Your task to perform on an android device: turn off javascript in the chrome app Image 0: 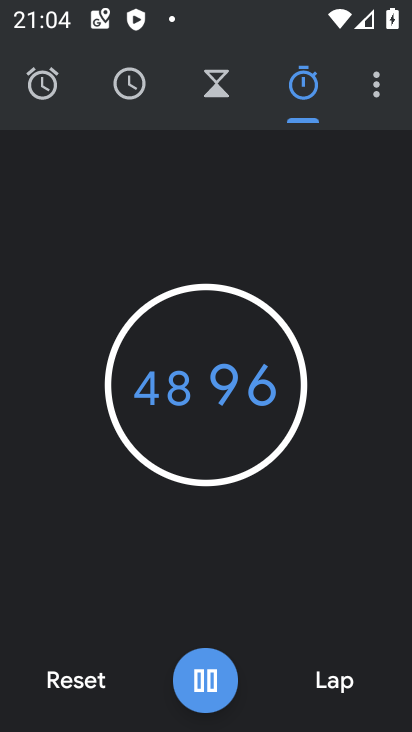
Step 0: press home button
Your task to perform on an android device: turn off javascript in the chrome app Image 1: 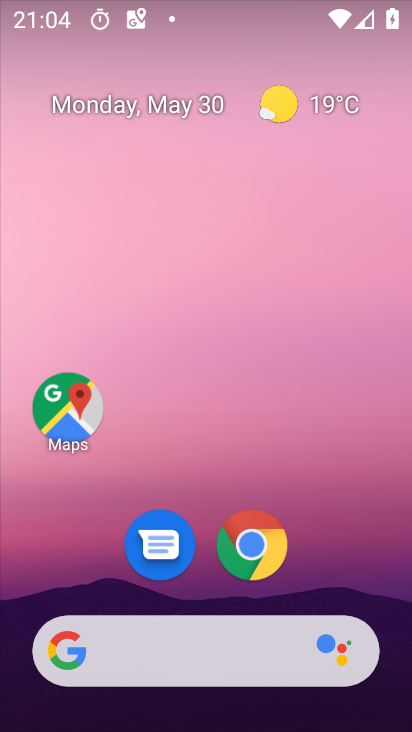
Step 1: click (267, 543)
Your task to perform on an android device: turn off javascript in the chrome app Image 2: 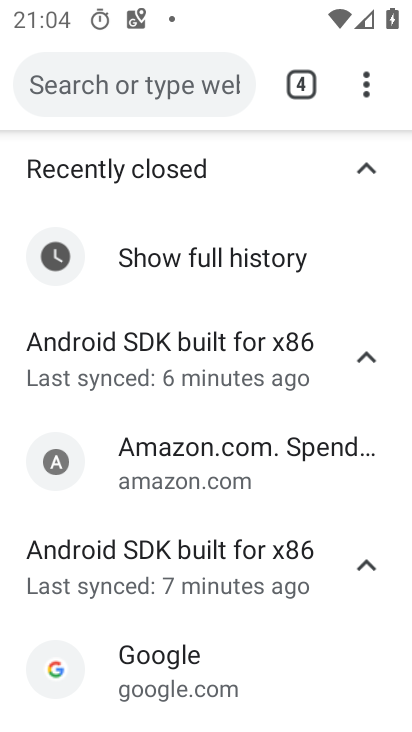
Step 2: click (376, 86)
Your task to perform on an android device: turn off javascript in the chrome app Image 3: 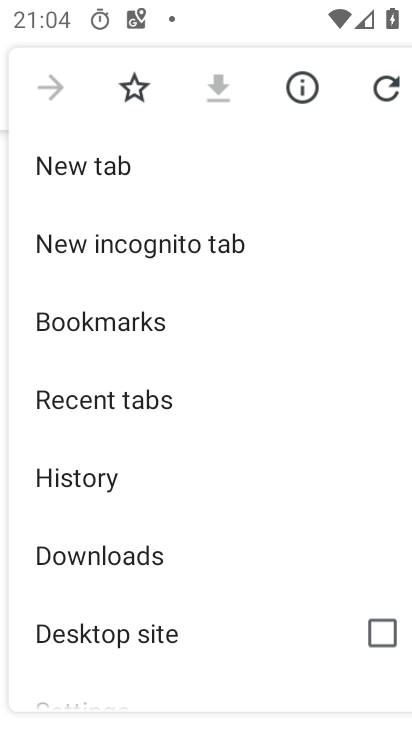
Step 3: drag from (121, 596) to (176, 294)
Your task to perform on an android device: turn off javascript in the chrome app Image 4: 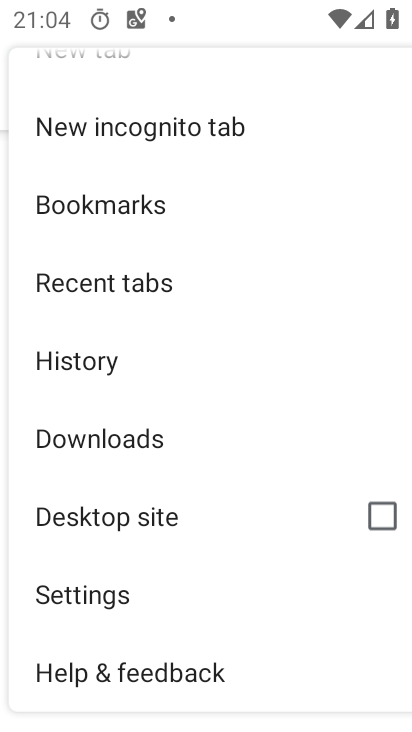
Step 4: click (85, 600)
Your task to perform on an android device: turn off javascript in the chrome app Image 5: 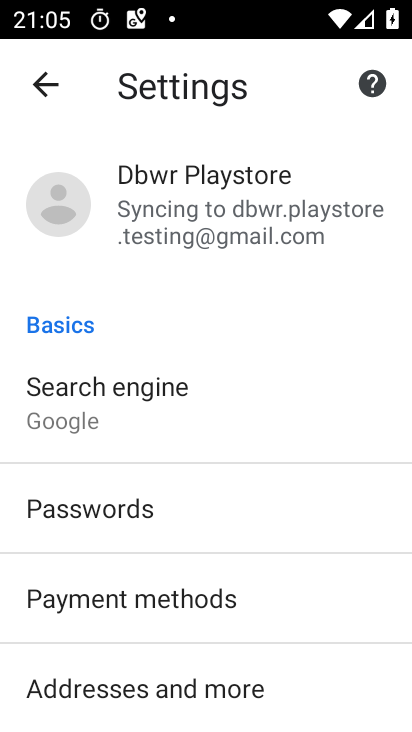
Step 5: drag from (313, 608) to (290, 339)
Your task to perform on an android device: turn off javascript in the chrome app Image 6: 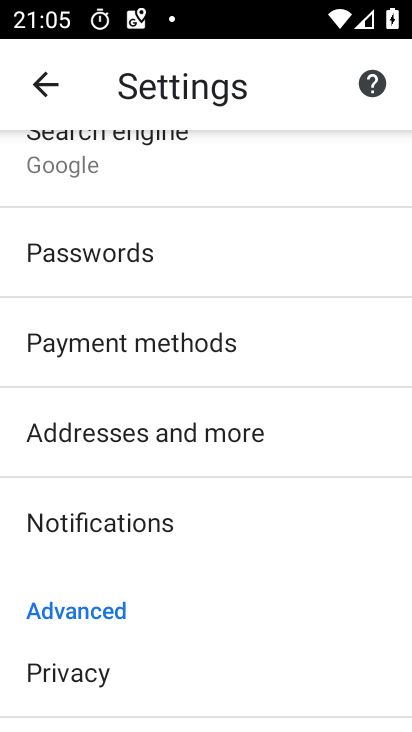
Step 6: drag from (223, 655) to (250, 408)
Your task to perform on an android device: turn off javascript in the chrome app Image 7: 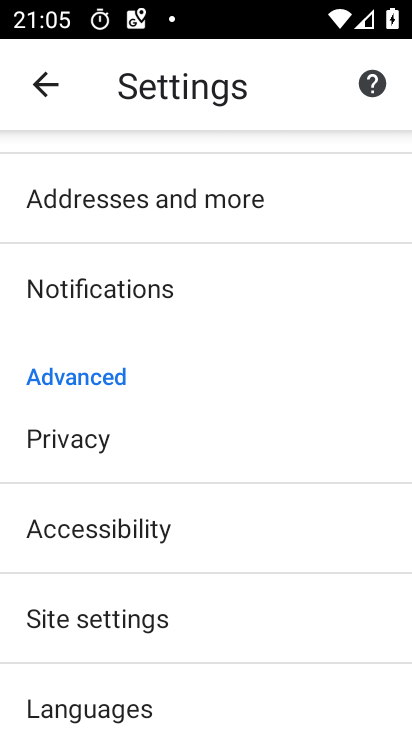
Step 7: click (150, 628)
Your task to perform on an android device: turn off javascript in the chrome app Image 8: 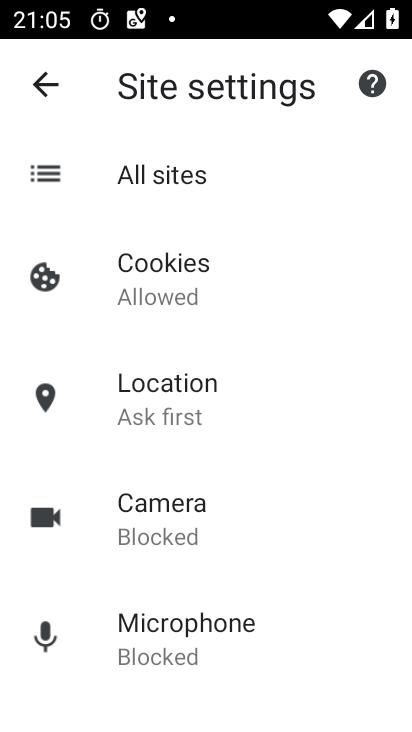
Step 8: drag from (290, 586) to (287, 450)
Your task to perform on an android device: turn off javascript in the chrome app Image 9: 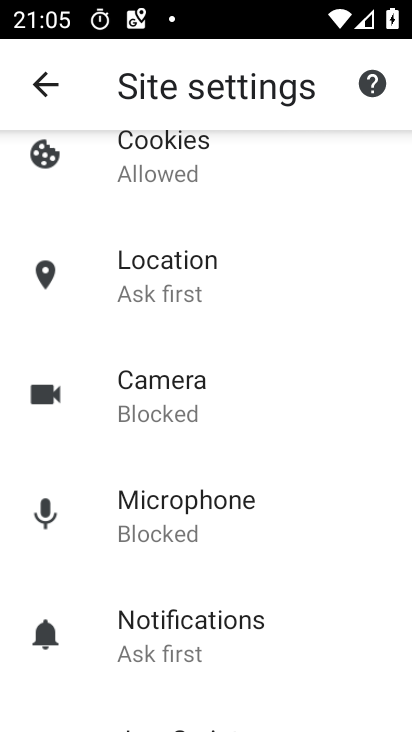
Step 9: drag from (306, 585) to (280, 239)
Your task to perform on an android device: turn off javascript in the chrome app Image 10: 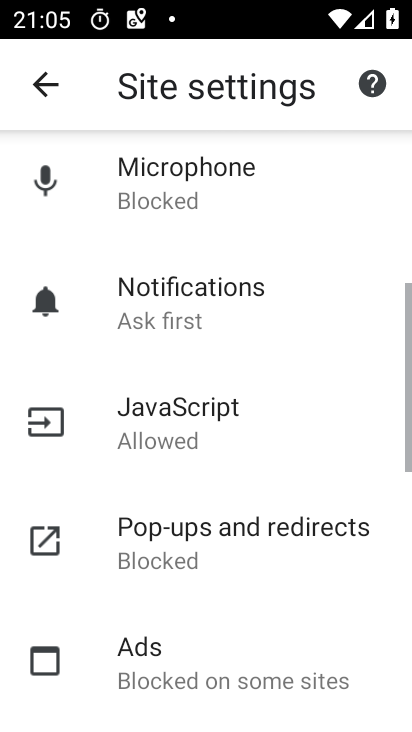
Step 10: click (207, 431)
Your task to perform on an android device: turn off javascript in the chrome app Image 11: 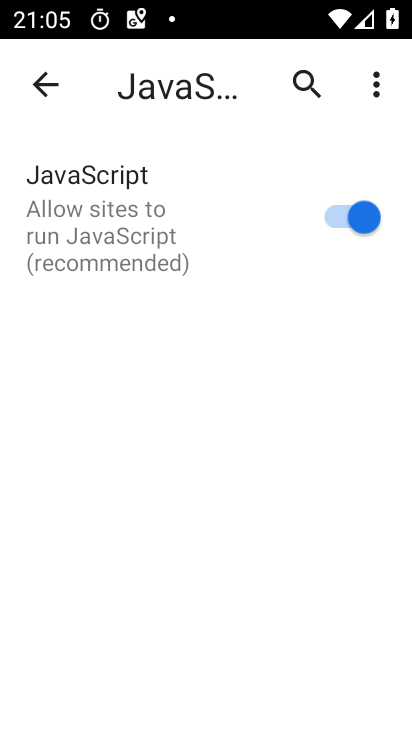
Step 11: click (335, 220)
Your task to perform on an android device: turn off javascript in the chrome app Image 12: 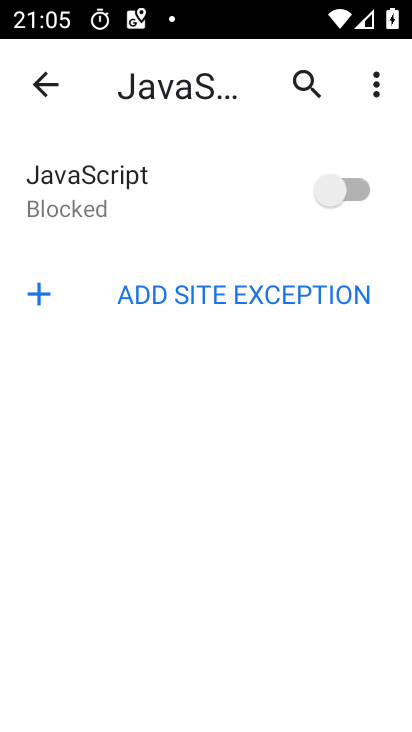
Step 12: task complete